Your task to perform on an android device: toggle javascript in the chrome app Image 0: 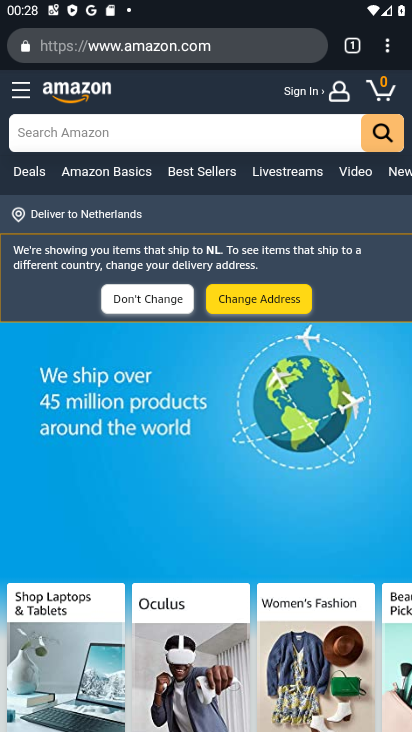
Step 0: click (394, 44)
Your task to perform on an android device: toggle javascript in the chrome app Image 1: 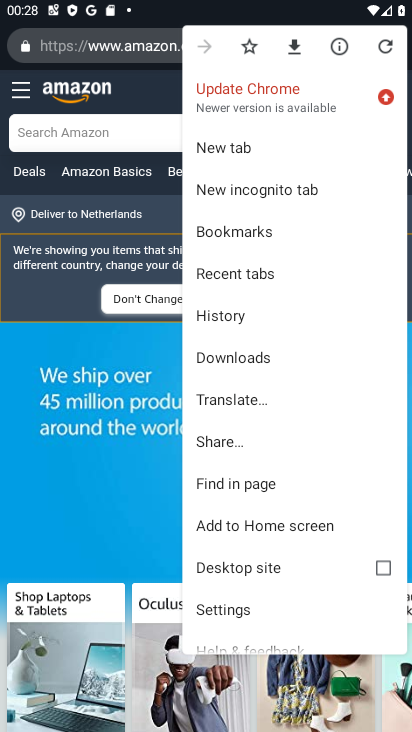
Step 1: click (241, 602)
Your task to perform on an android device: toggle javascript in the chrome app Image 2: 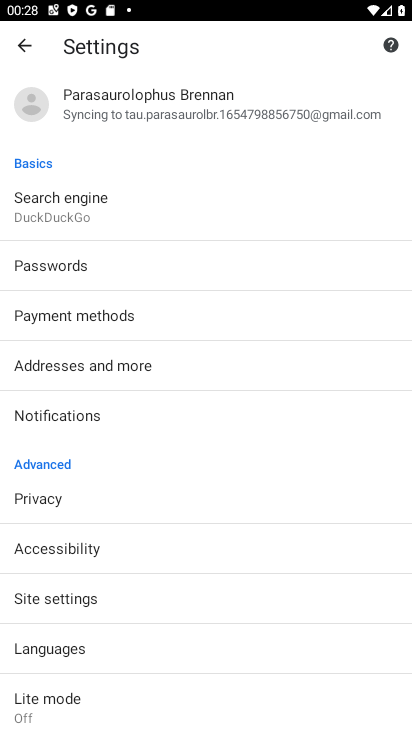
Step 2: click (140, 610)
Your task to perform on an android device: toggle javascript in the chrome app Image 3: 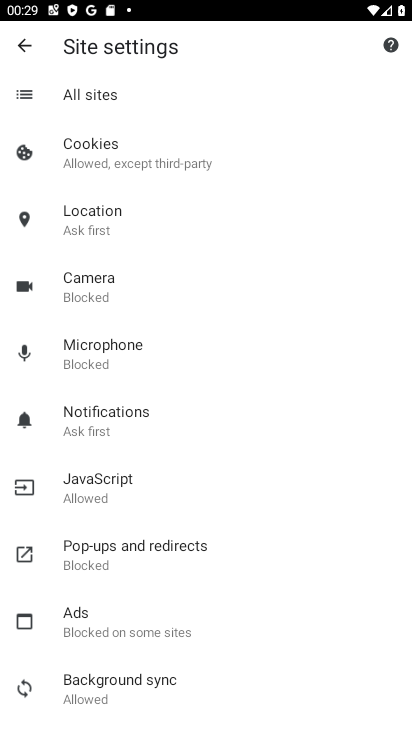
Step 3: click (58, 486)
Your task to perform on an android device: toggle javascript in the chrome app Image 4: 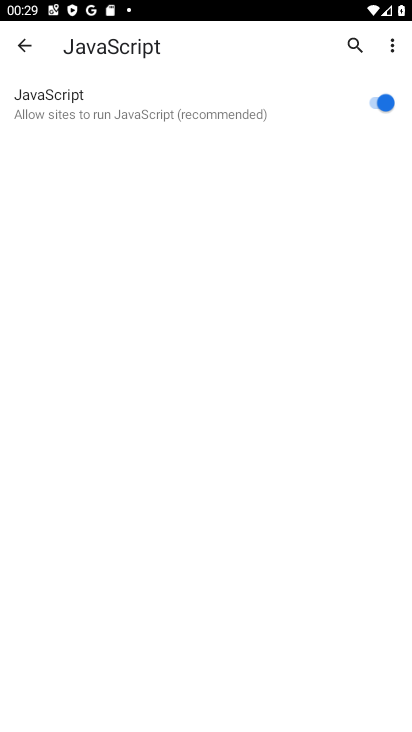
Step 4: click (396, 108)
Your task to perform on an android device: toggle javascript in the chrome app Image 5: 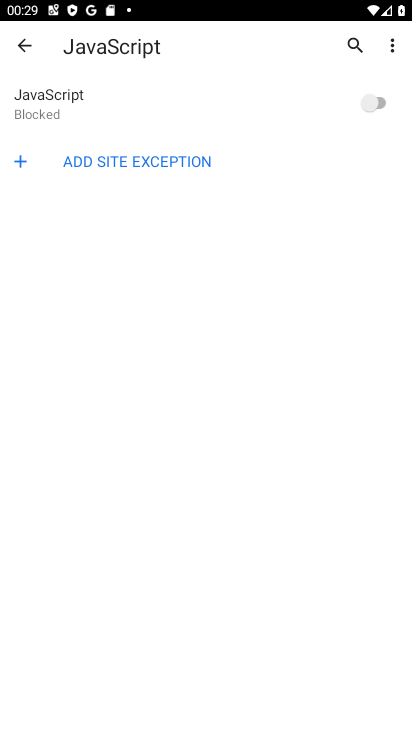
Step 5: task complete